Your task to perform on an android device: change notification settings in the gmail app Image 0: 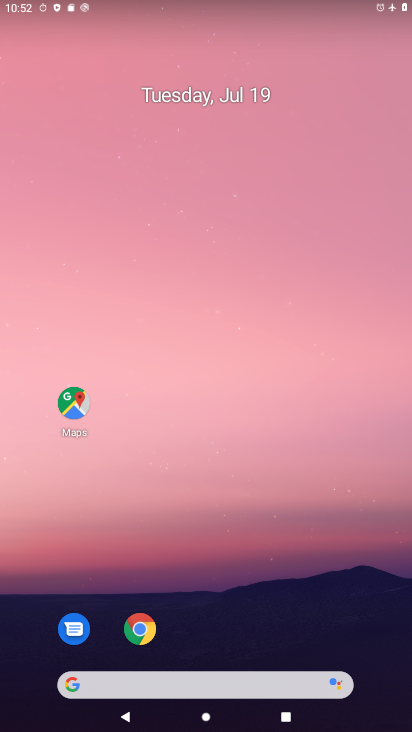
Step 0: drag from (219, 133) to (219, 71)
Your task to perform on an android device: change notification settings in the gmail app Image 1: 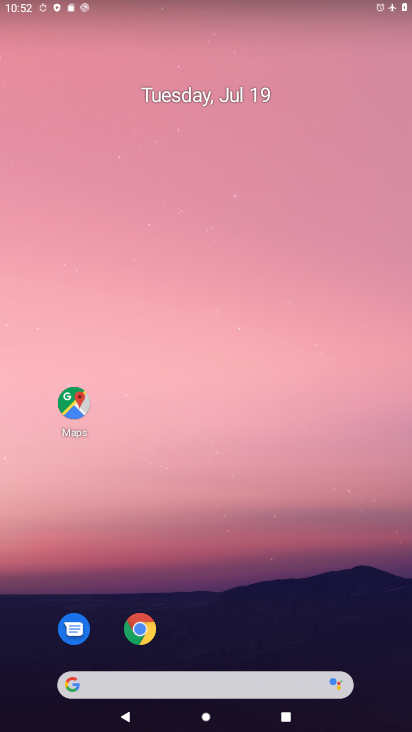
Step 1: drag from (190, 384) to (185, 105)
Your task to perform on an android device: change notification settings in the gmail app Image 2: 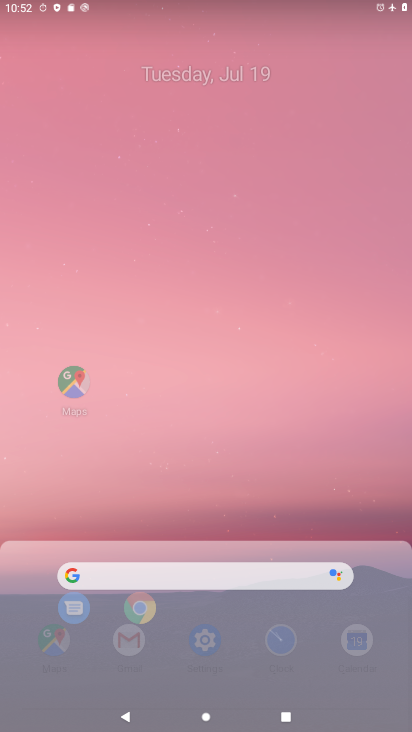
Step 2: drag from (233, 540) to (213, 133)
Your task to perform on an android device: change notification settings in the gmail app Image 3: 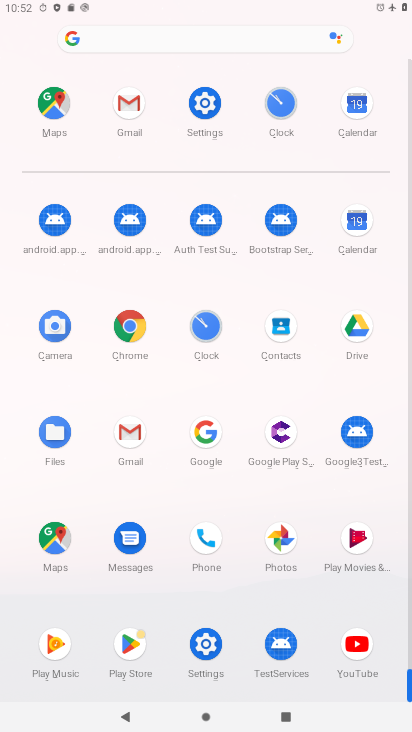
Step 3: click (132, 425)
Your task to perform on an android device: change notification settings in the gmail app Image 4: 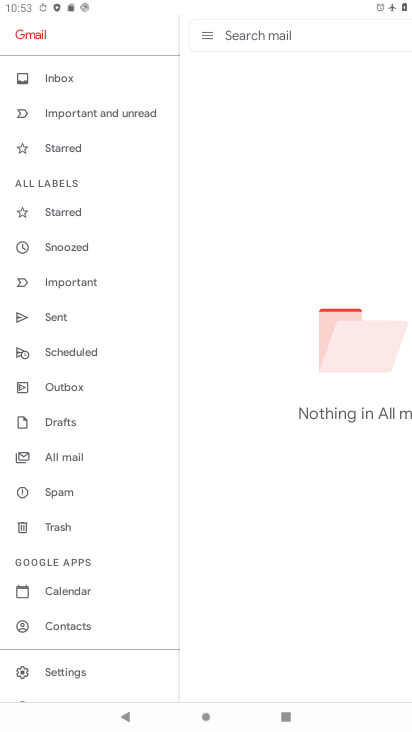
Step 4: click (64, 664)
Your task to perform on an android device: change notification settings in the gmail app Image 5: 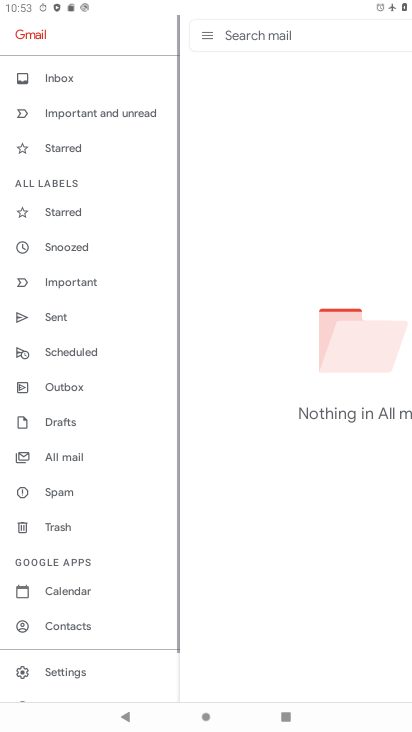
Step 5: click (63, 664)
Your task to perform on an android device: change notification settings in the gmail app Image 6: 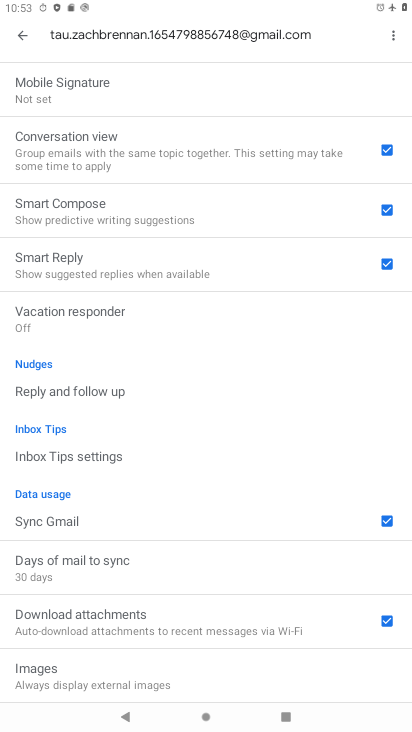
Step 6: drag from (50, 174) to (100, 445)
Your task to perform on an android device: change notification settings in the gmail app Image 7: 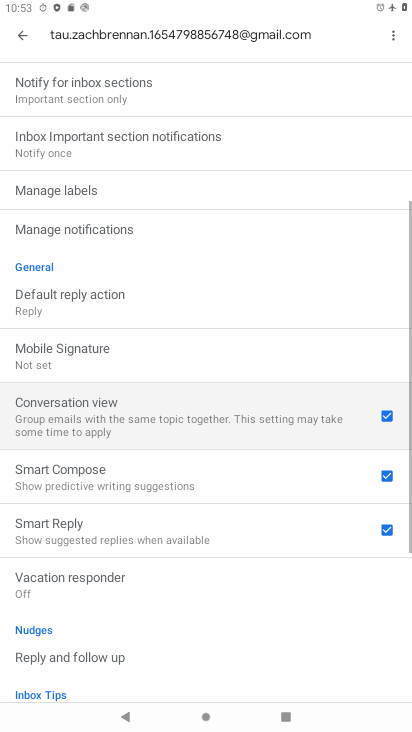
Step 7: drag from (88, 145) to (98, 463)
Your task to perform on an android device: change notification settings in the gmail app Image 8: 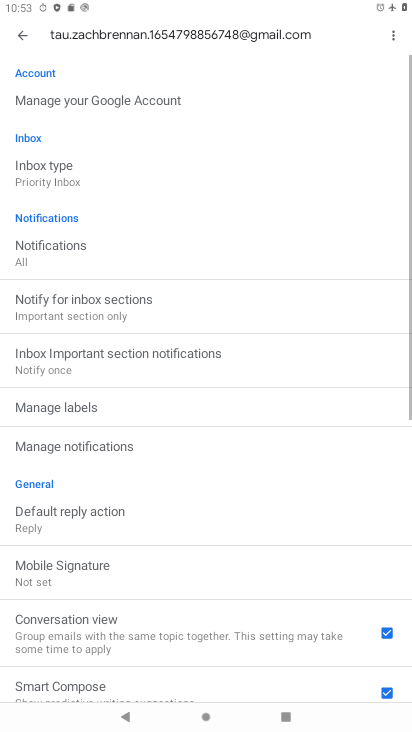
Step 8: drag from (71, 163) to (111, 472)
Your task to perform on an android device: change notification settings in the gmail app Image 9: 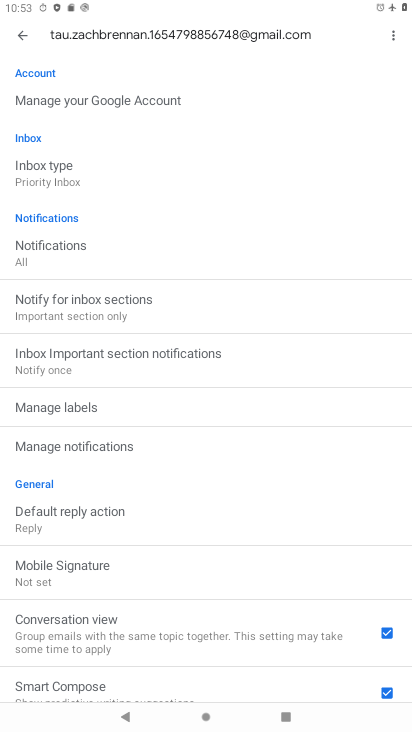
Step 9: click (46, 243)
Your task to perform on an android device: change notification settings in the gmail app Image 10: 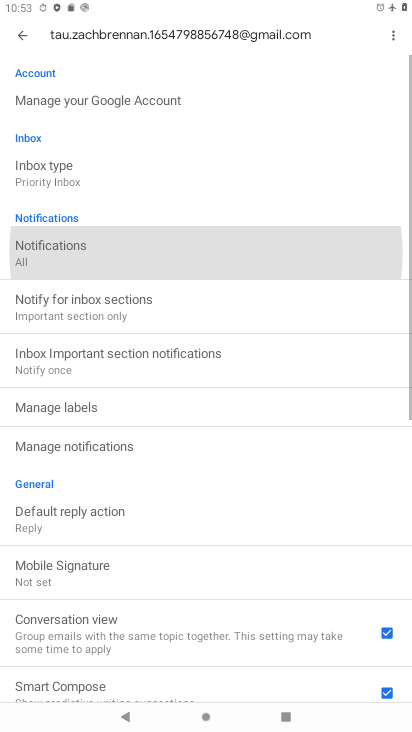
Step 10: click (46, 243)
Your task to perform on an android device: change notification settings in the gmail app Image 11: 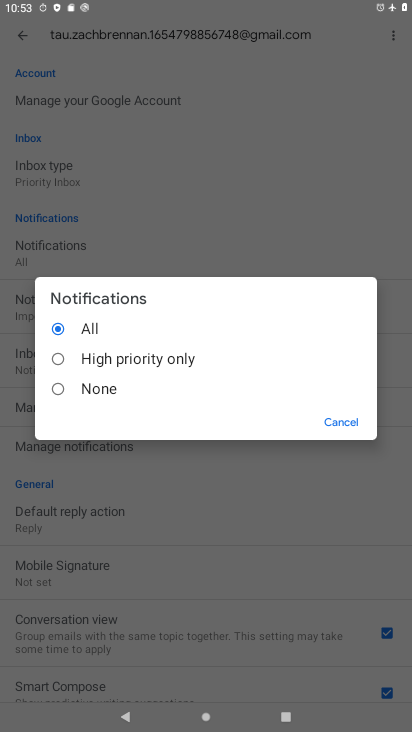
Step 11: click (57, 360)
Your task to perform on an android device: change notification settings in the gmail app Image 12: 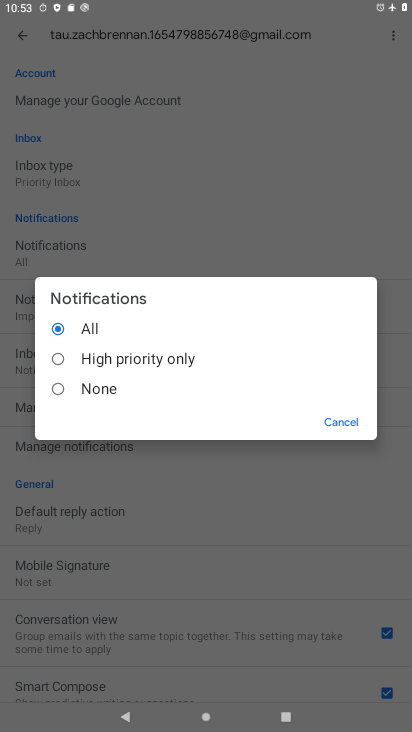
Step 12: click (57, 359)
Your task to perform on an android device: change notification settings in the gmail app Image 13: 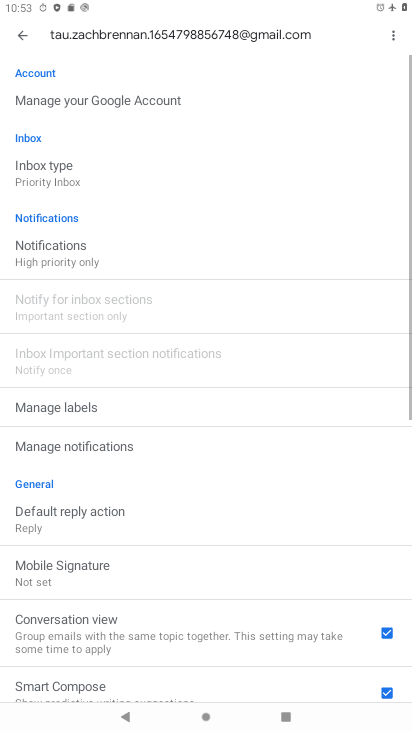
Step 13: click (57, 359)
Your task to perform on an android device: change notification settings in the gmail app Image 14: 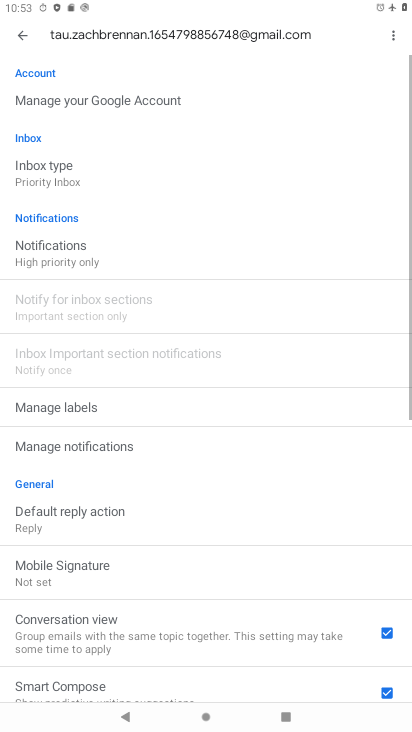
Step 14: task complete